Your task to perform on an android device: Turn off the flashlight Image 0: 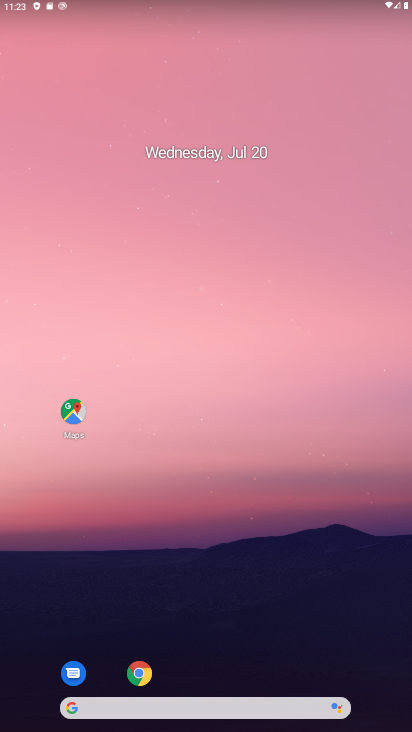
Step 0: drag from (274, 0) to (267, 413)
Your task to perform on an android device: Turn off the flashlight Image 1: 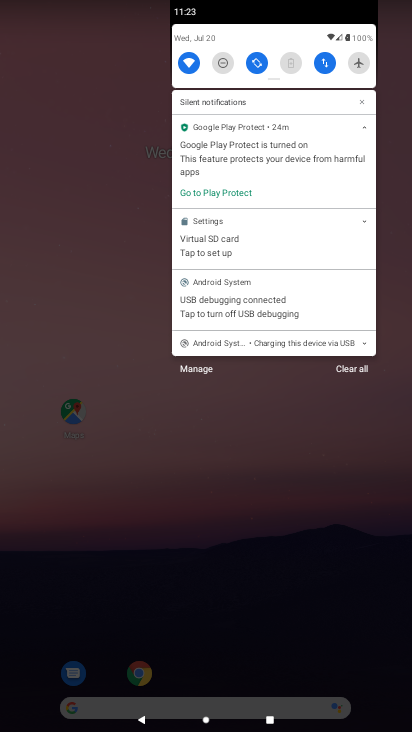
Step 1: click (269, 557)
Your task to perform on an android device: Turn off the flashlight Image 2: 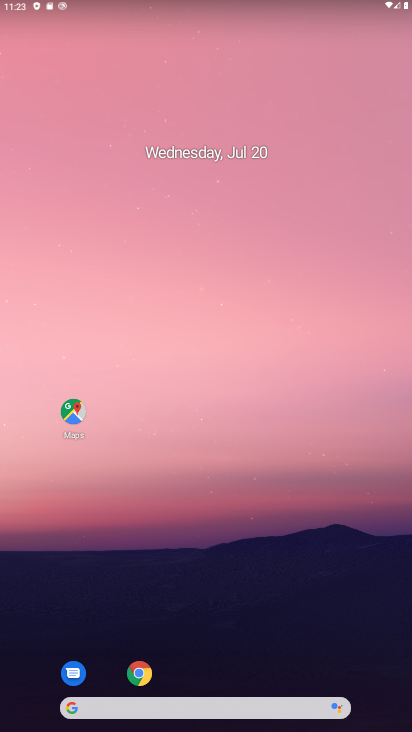
Step 2: task complete